Your task to perform on an android device: Open Amazon Image 0: 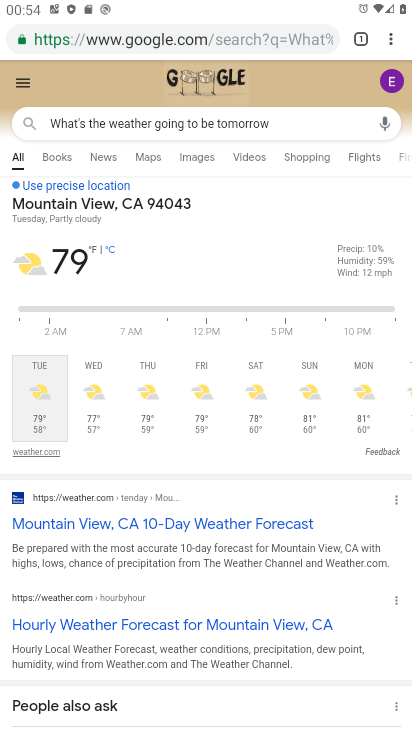
Step 0: click (389, 32)
Your task to perform on an android device: Open Amazon Image 1: 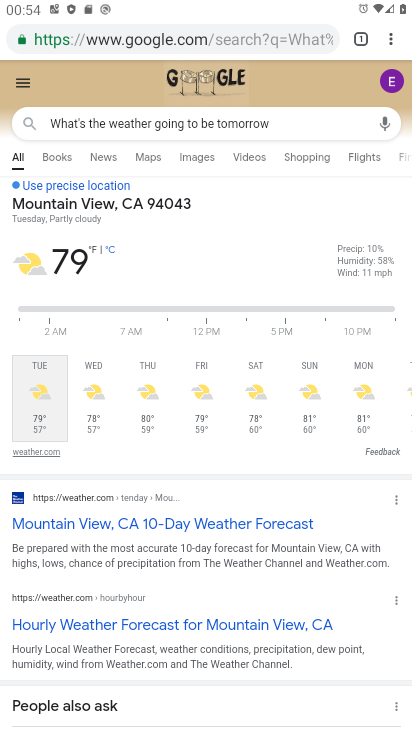
Step 1: click (400, 38)
Your task to perform on an android device: Open Amazon Image 2: 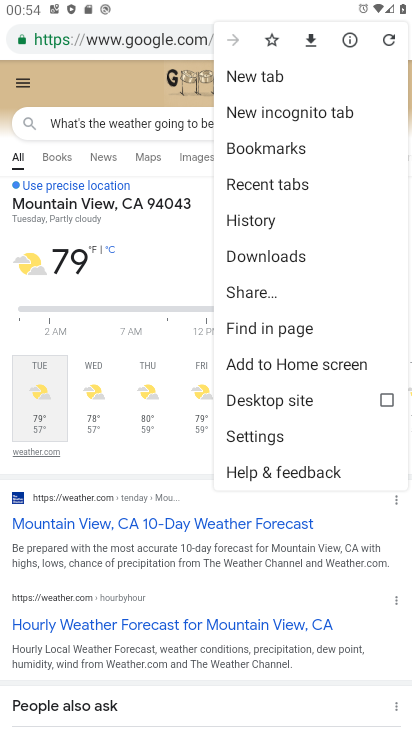
Step 2: click (267, 79)
Your task to perform on an android device: Open Amazon Image 3: 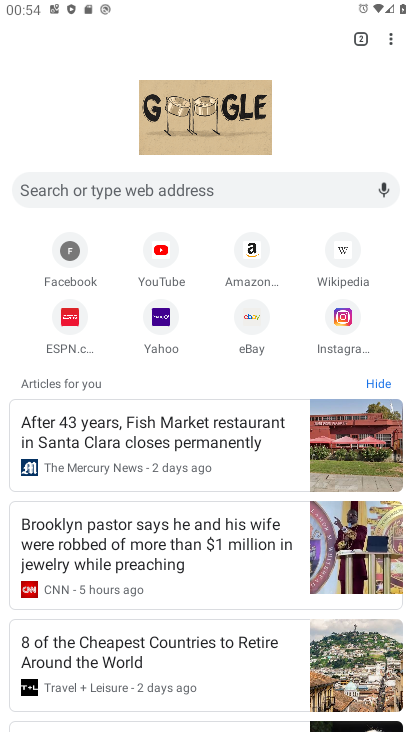
Step 3: click (239, 244)
Your task to perform on an android device: Open Amazon Image 4: 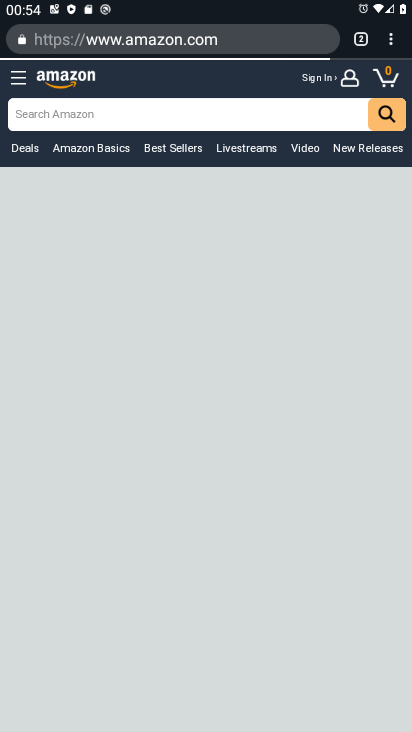
Step 4: task complete